Your task to perform on an android device: Open sound settings Image 0: 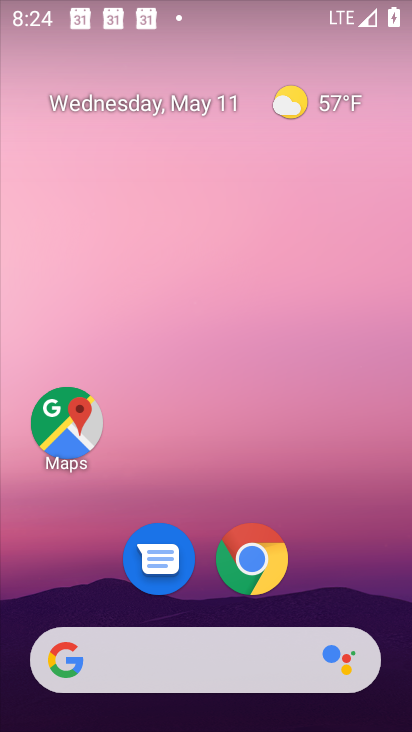
Step 0: press home button
Your task to perform on an android device: Open sound settings Image 1: 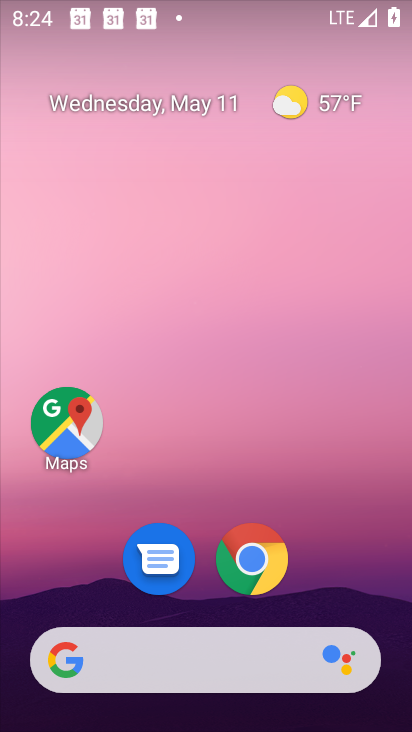
Step 1: drag from (386, 601) to (357, 29)
Your task to perform on an android device: Open sound settings Image 2: 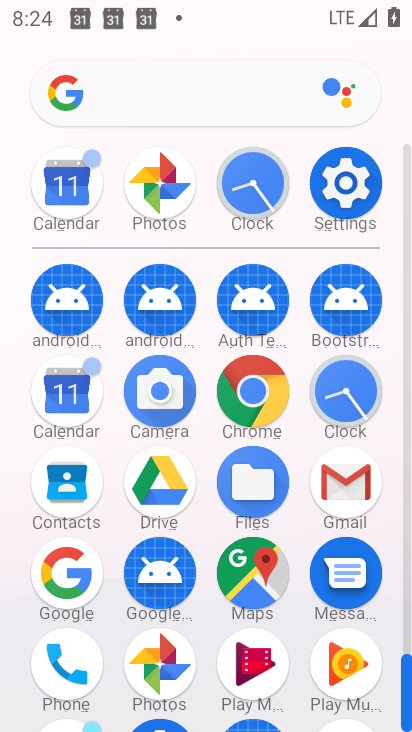
Step 2: click (352, 180)
Your task to perform on an android device: Open sound settings Image 3: 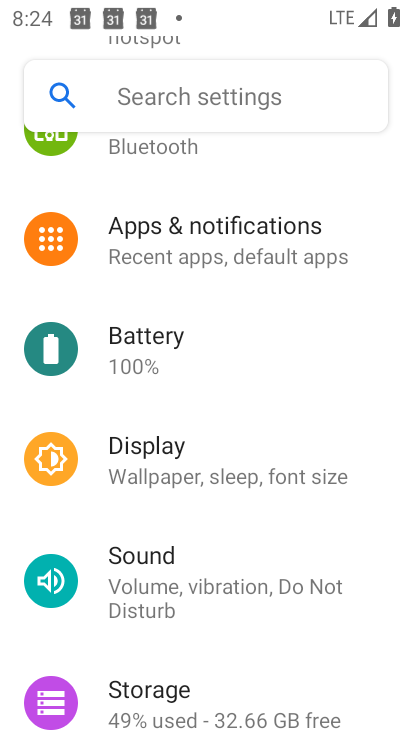
Step 3: click (143, 595)
Your task to perform on an android device: Open sound settings Image 4: 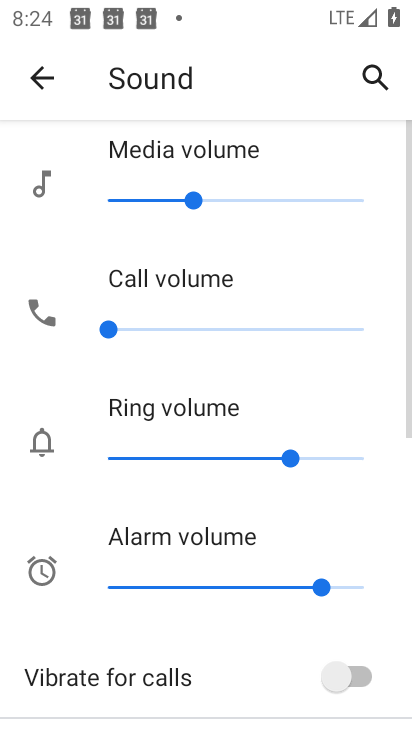
Step 4: task complete